Your task to perform on an android device: delete browsing data in the chrome app Image 0: 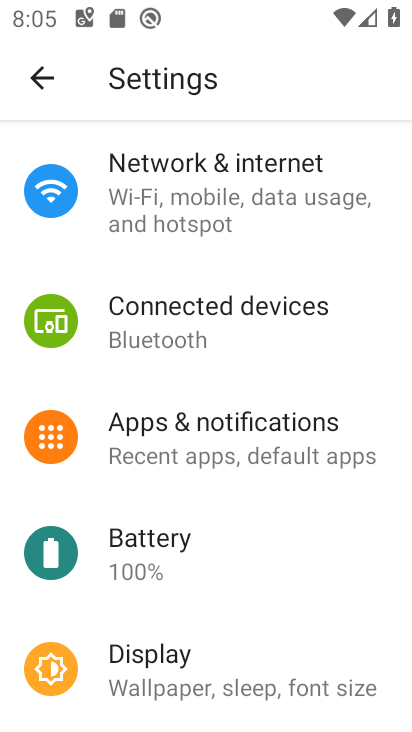
Step 0: press home button
Your task to perform on an android device: delete browsing data in the chrome app Image 1: 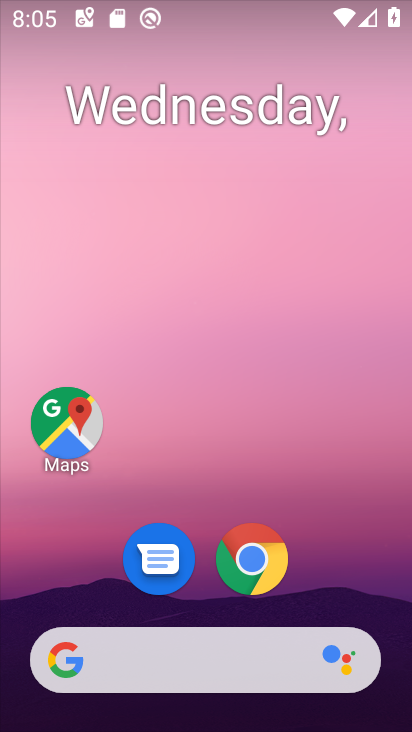
Step 1: drag from (335, 547) to (340, 231)
Your task to perform on an android device: delete browsing data in the chrome app Image 2: 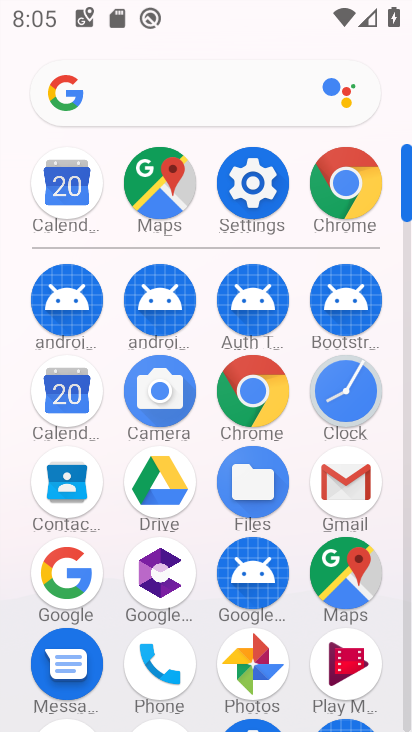
Step 2: click (250, 406)
Your task to perform on an android device: delete browsing data in the chrome app Image 3: 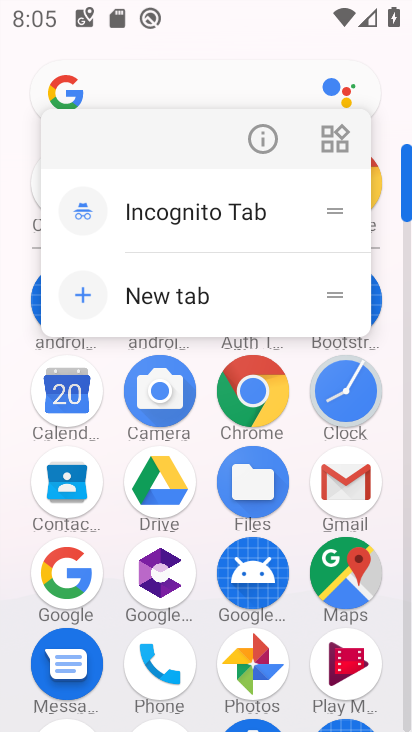
Step 3: click (250, 397)
Your task to perform on an android device: delete browsing data in the chrome app Image 4: 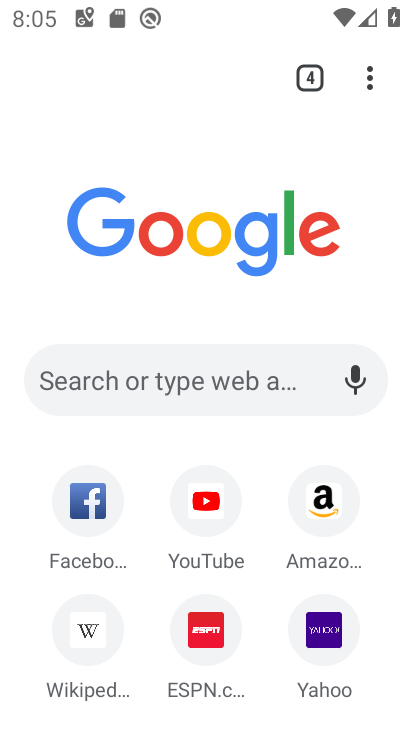
Step 4: drag from (372, 78) to (85, 538)
Your task to perform on an android device: delete browsing data in the chrome app Image 5: 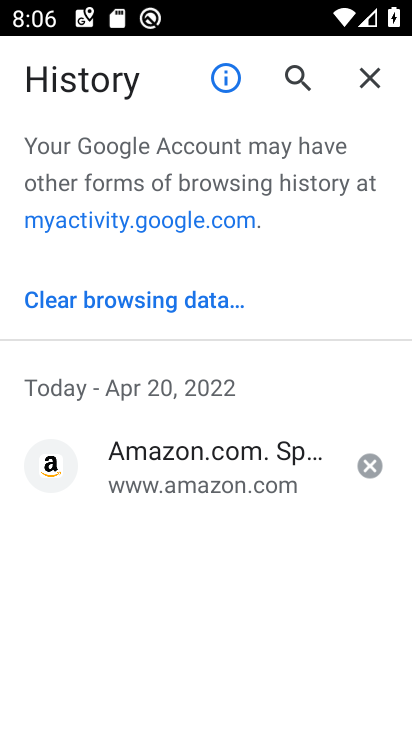
Step 5: click (135, 309)
Your task to perform on an android device: delete browsing data in the chrome app Image 6: 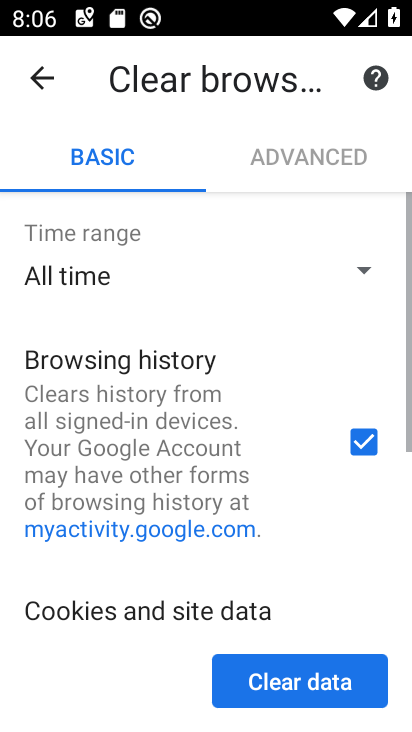
Step 6: click (308, 678)
Your task to perform on an android device: delete browsing data in the chrome app Image 7: 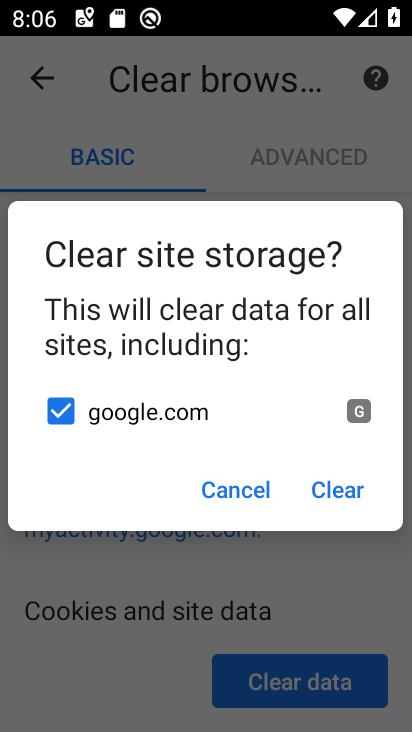
Step 7: click (325, 494)
Your task to perform on an android device: delete browsing data in the chrome app Image 8: 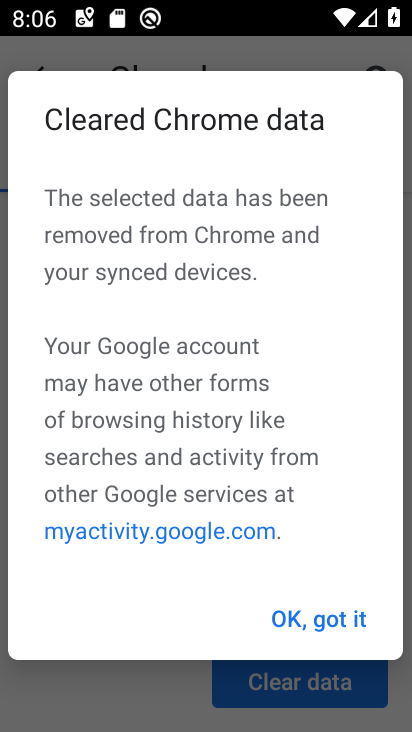
Step 8: click (292, 619)
Your task to perform on an android device: delete browsing data in the chrome app Image 9: 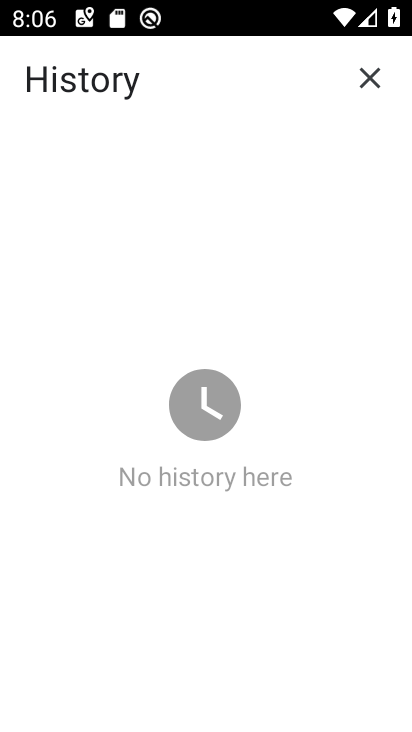
Step 9: task complete